Your task to perform on an android device: turn on wifi Image 0: 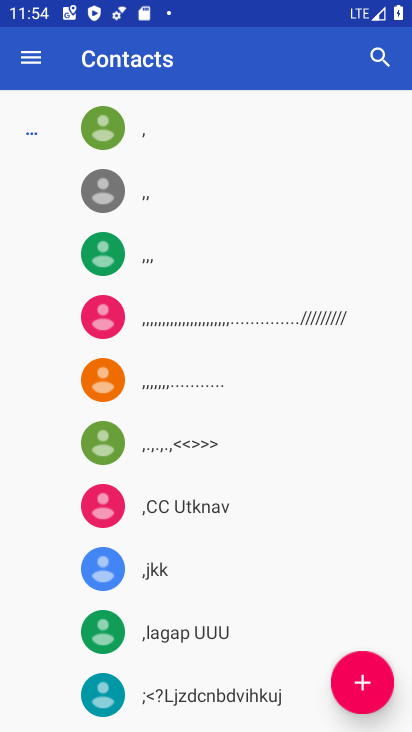
Step 0: press home button
Your task to perform on an android device: turn on wifi Image 1: 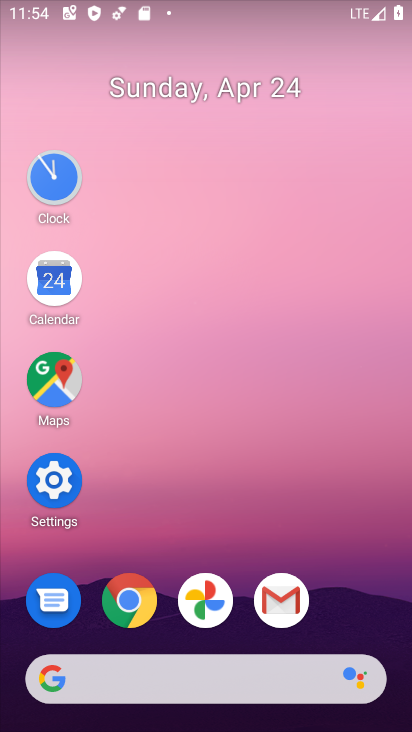
Step 1: click (60, 483)
Your task to perform on an android device: turn on wifi Image 2: 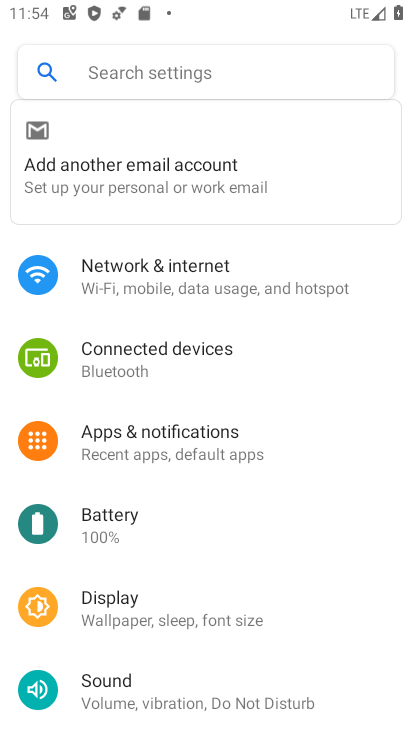
Step 2: click (157, 264)
Your task to perform on an android device: turn on wifi Image 3: 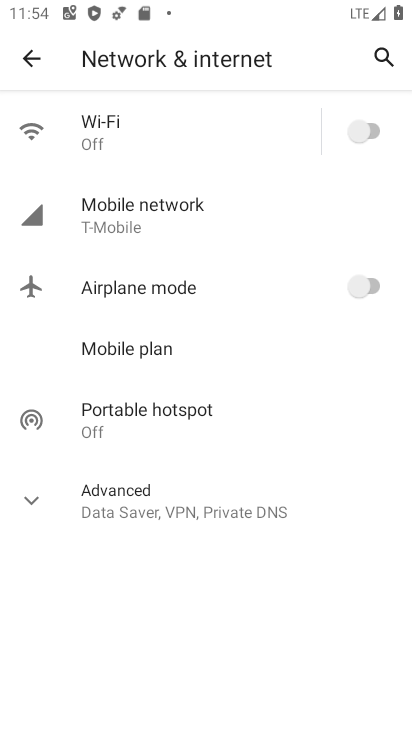
Step 3: click (363, 129)
Your task to perform on an android device: turn on wifi Image 4: 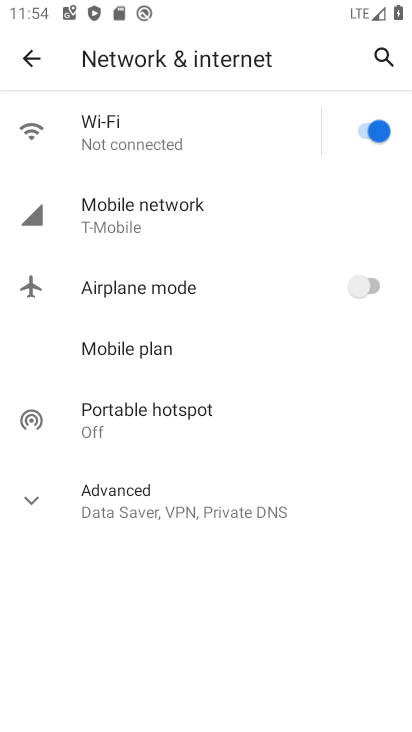
Step 4: task complete